Your task to perform on an android device: What's the weather today? Image 0: 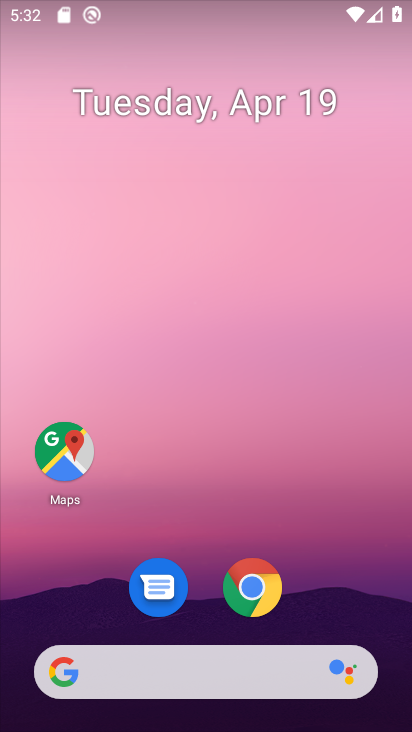
Step 0: drag from (356, 605) to (382, 0)
Your task to perform on an android device: What's the weather today? Image 1: 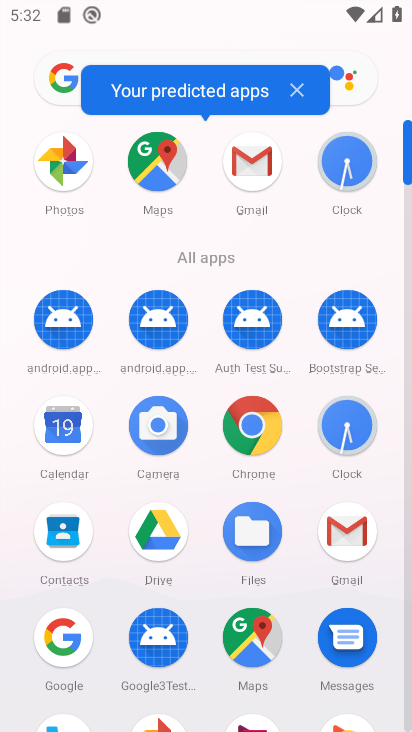
Step 1: drag from (229, 552) to (286, 167)
Your task to perform on an android device: What's the weather today? Image 2: 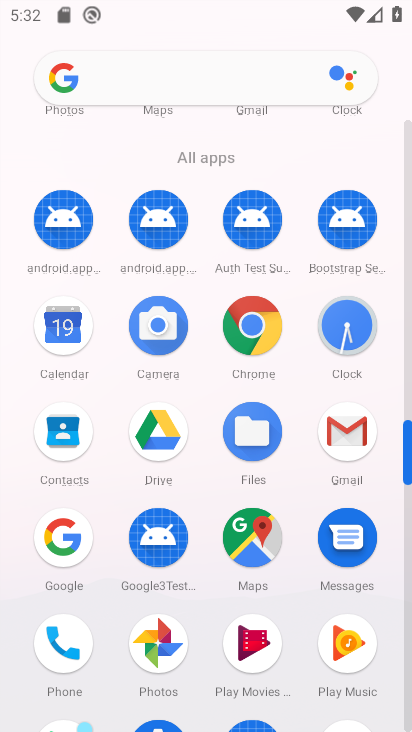
Step 2: drag from (213, 572) to (259, 213)
Your task to perform on an android device: What's the weather today? Image 3: 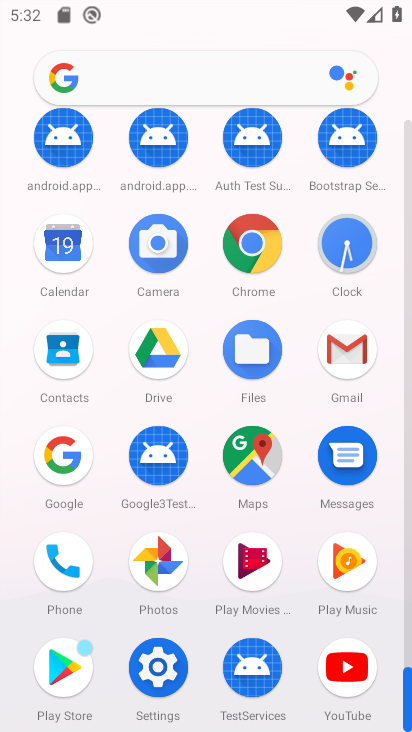
Step 3: drag from (213, 482) to (211, 725)
Your task to perform on an android device: What's the weather today? Image 4: 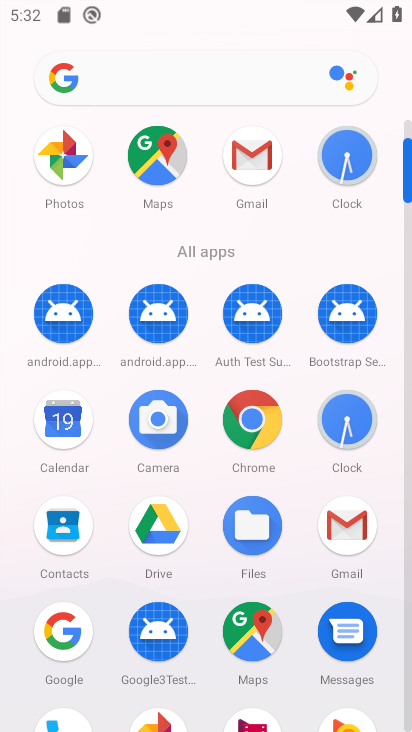
Step 4: click (116, 68)
Your task to perform on an android device: What's the weather today? Image 5: 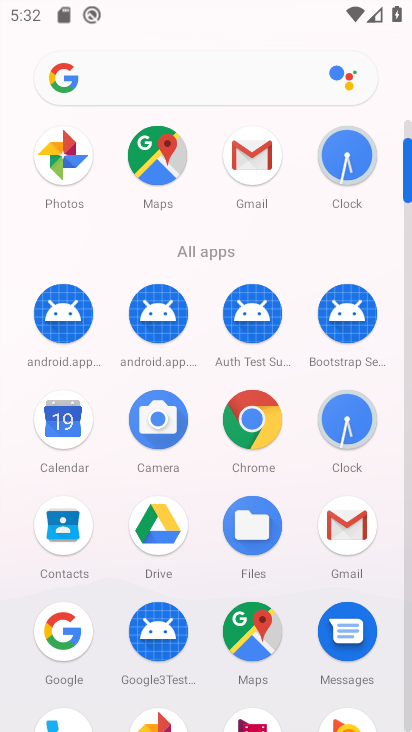
Step 5: click (114, 72)
Your task to perform on an android device: What's the weather today? Image 6: 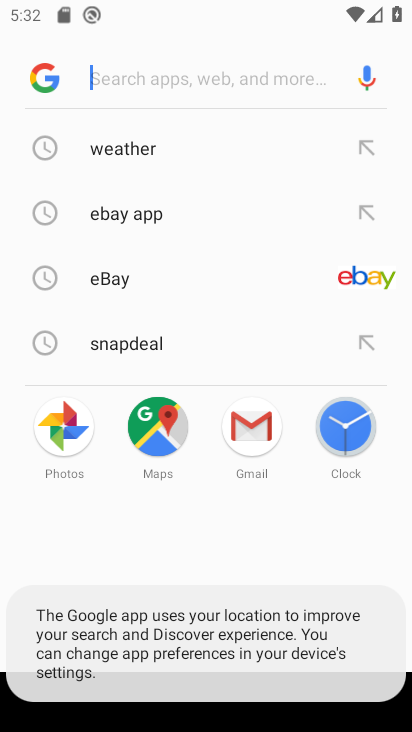
Step 6: click (119, 150)
Your task to perform on an android device: What's the weather today? Image 7: 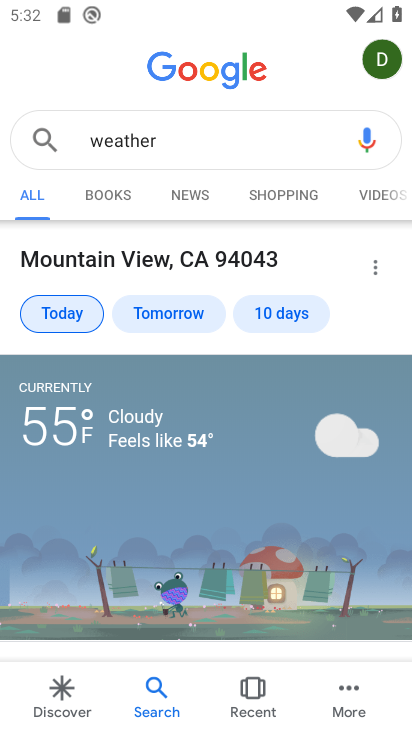
Step 7: task complete